Your task to perform on an android device: Open notification settings Image 0: 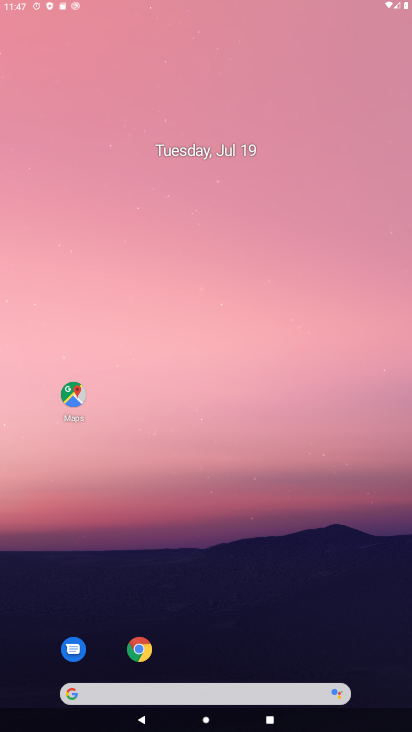
Step 0: click (266, 281)
Your task to perform on an android device: Open notification settings Image 1: 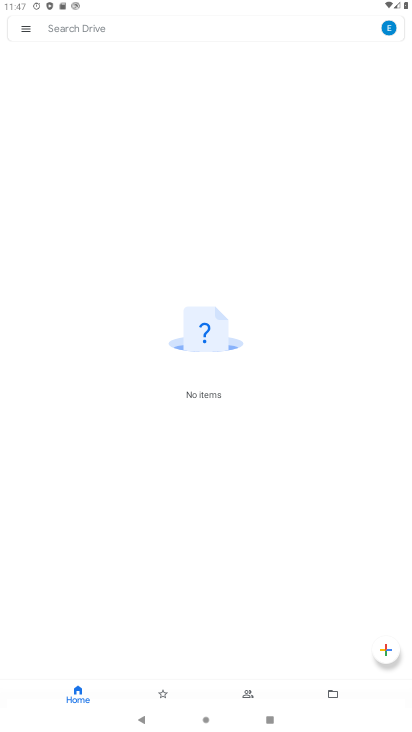
Step 1: press home button
Your task to perform on an android device: Open notification settings Image 2: 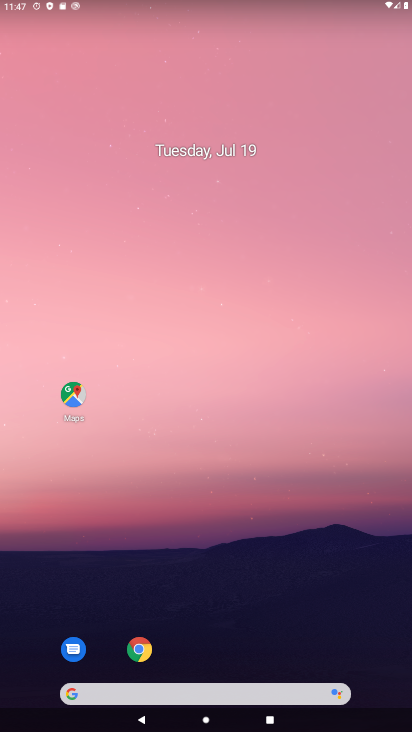
Step 2: drag from (227, 719) to (238, 129)
Your task to perform on an android device: Open notification settings Image 3: 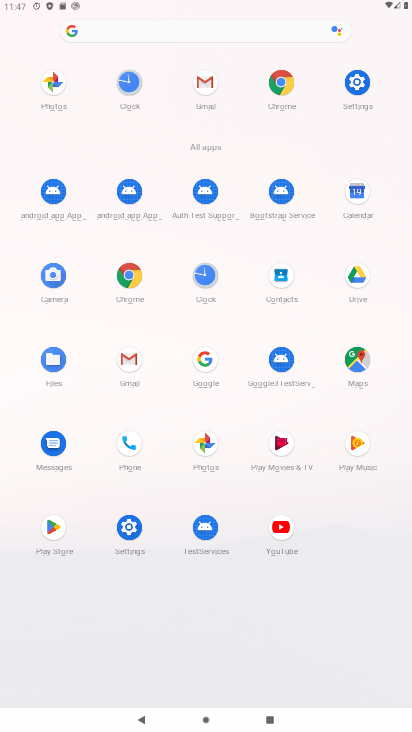
Step 3: click (352, 85)
Your task to perform on an android device: Open notification settings Image 4: 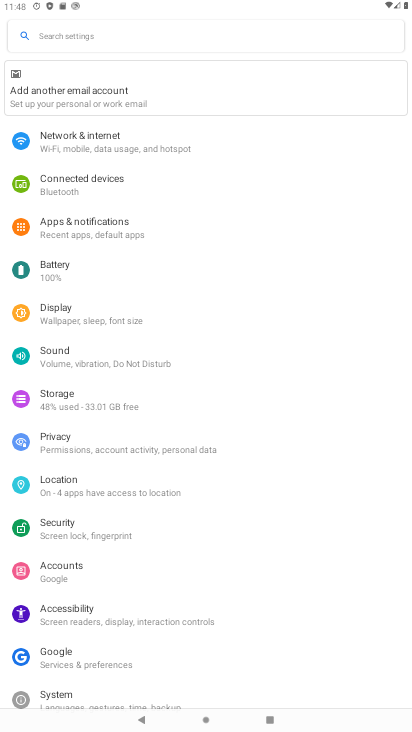
Step 4: click (71, 229)
Your task to perform on an android device: Open notification settings Image 5: 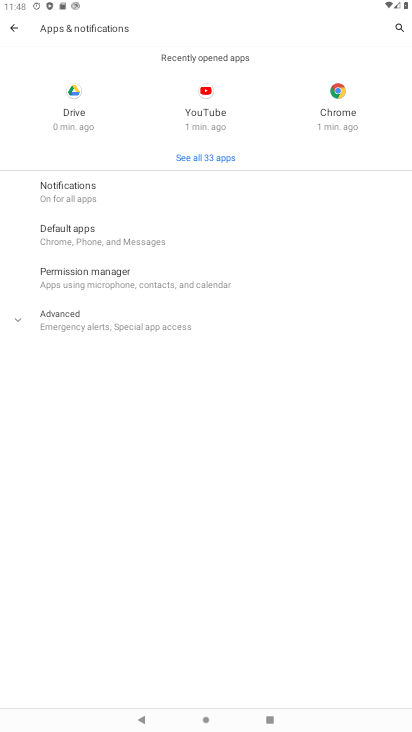
Step 5: click (48, 190)
Your task to perform on an android device: Open notification settings Image 6: 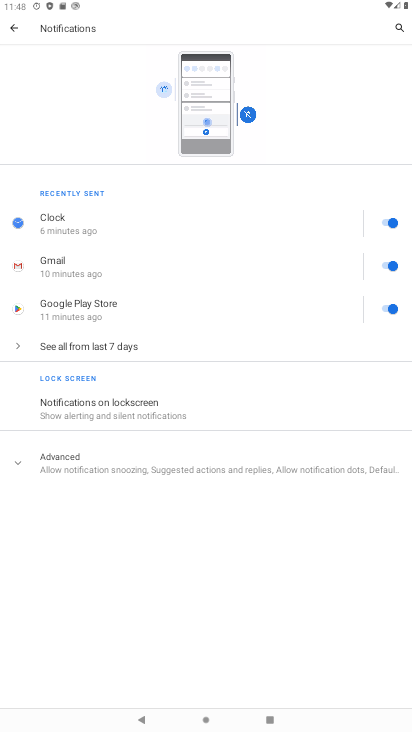
Step 6: task complete